Your task to perform on an android device: Find coffee shops on Maps Image 0: 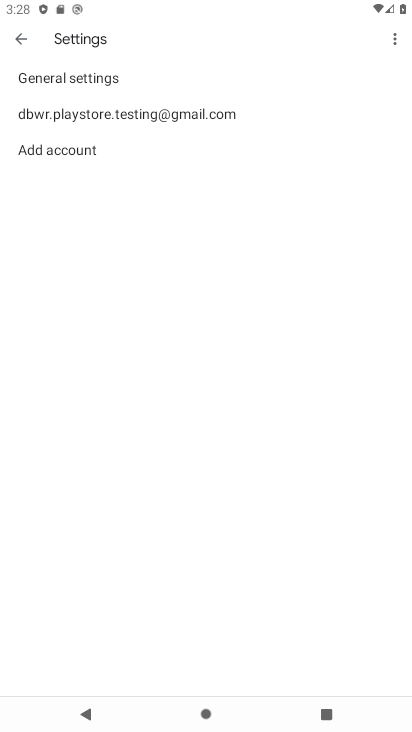
Step 0: press home button
Your task to perform on an android device: Find coffee shops on Maps Image 1: 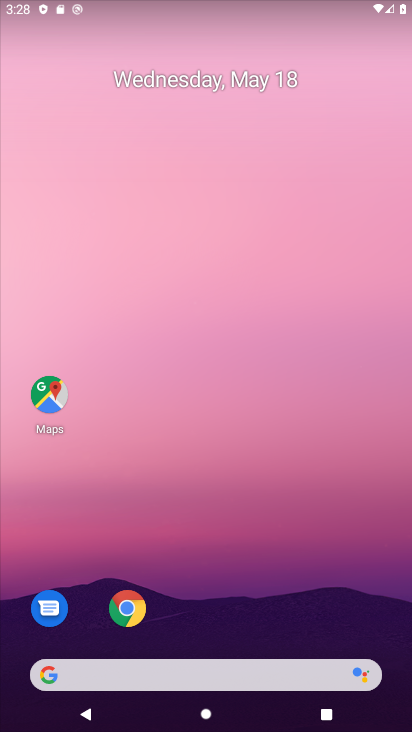
Step 1: click (35, 391)
Your task to perform on an android device: Find coffee shops on Maps Image 2: 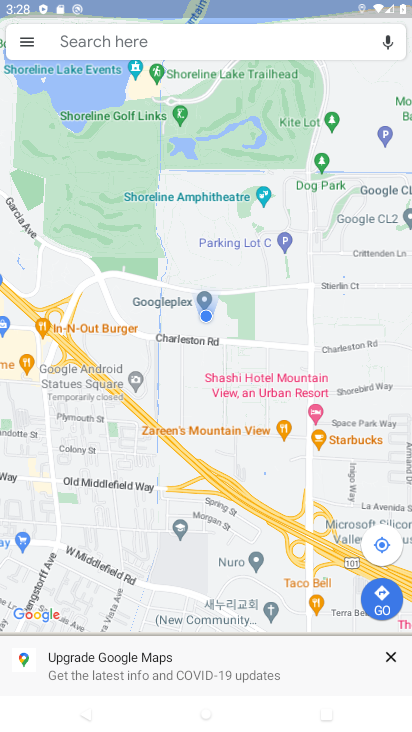
Step 2: click (217, 37)
Your task to perform on an android device: Find coffee shops on Maps Image 3: 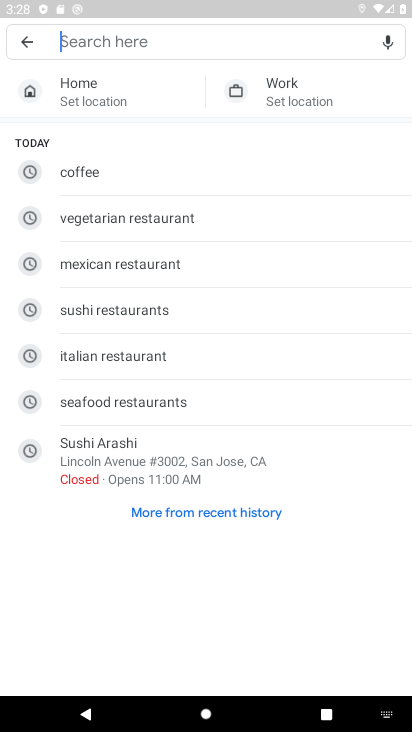
Step 3: click (70, 182)
Your task to perform on an android device: Find coffee shops on Maps Image 4: 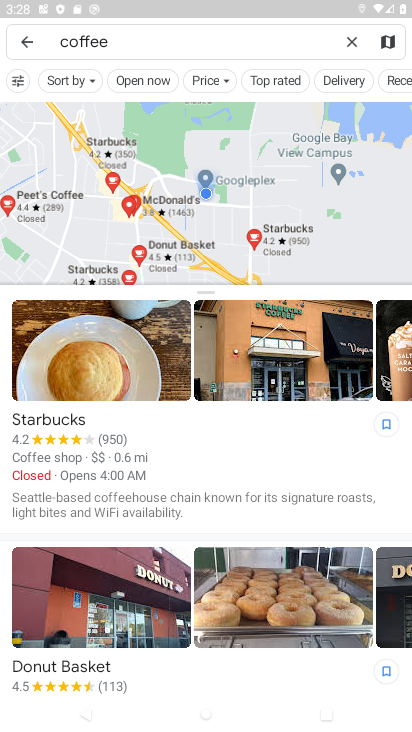
Step 4: task complete